Your task to perform on an android device: Show me recent news Image 0: 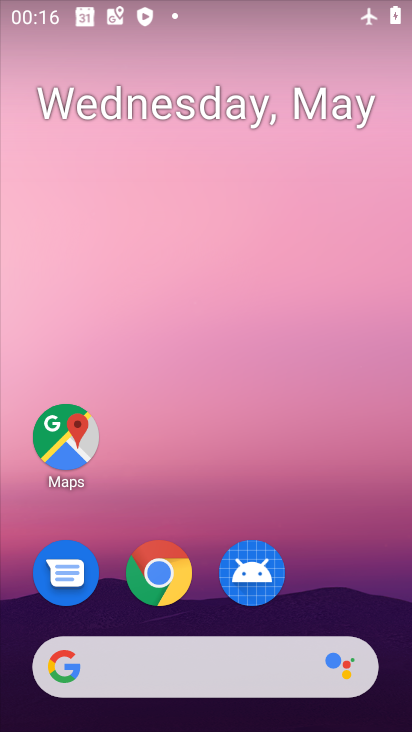
Step 0: drag from (6, 272) to (377, 434)
Your task to perform on an android device: Show me recent news Image 1: 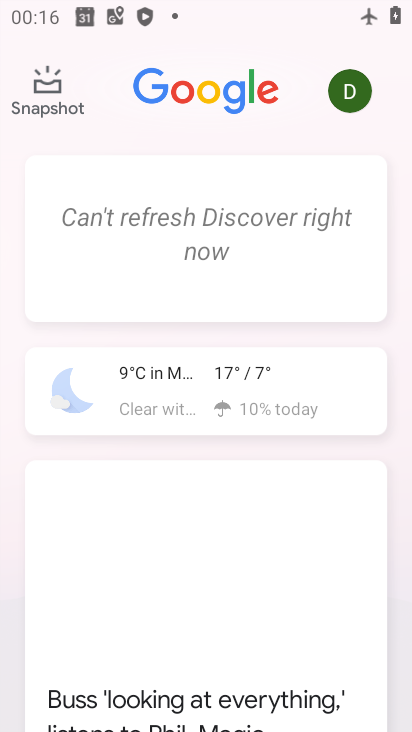
Step 1: task complete